Your task to perform on an android device: Go to display settings Image 0: 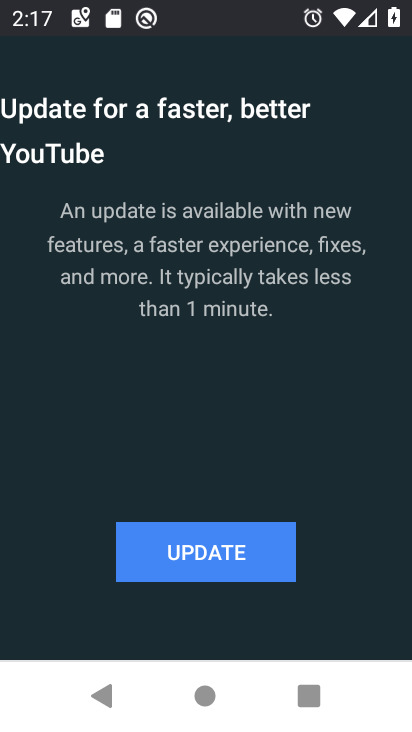
Step 0: press home button
Your task to perform on an android device: Go to display settings Image 1: 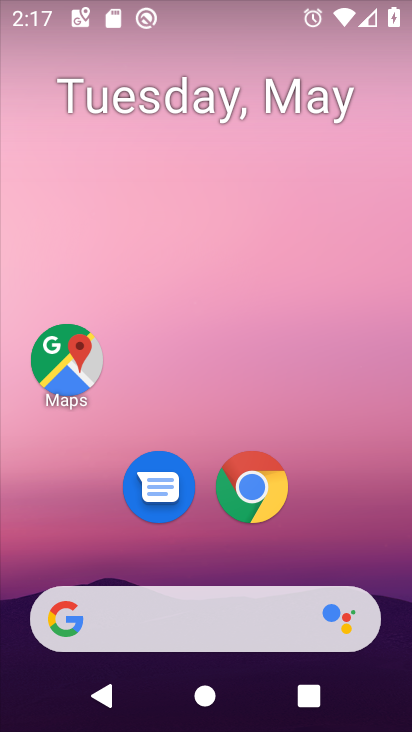
Step 1: drag from (11, 600) to (228, 192)
Your task to perform on an android device: Go to display settings Image 2: 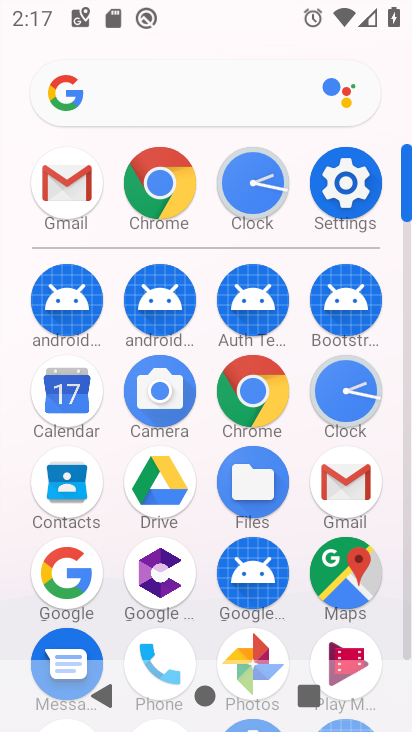
Step 2: click (347, 201)
Your task to perform on an android device: Go to display settings Image 3: 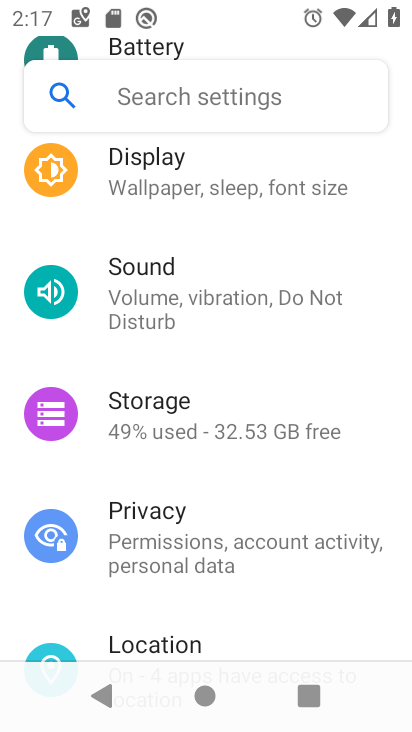
Step 3: click (183, 176)
Your task to perform on an android device: Go to display settings Image 4: 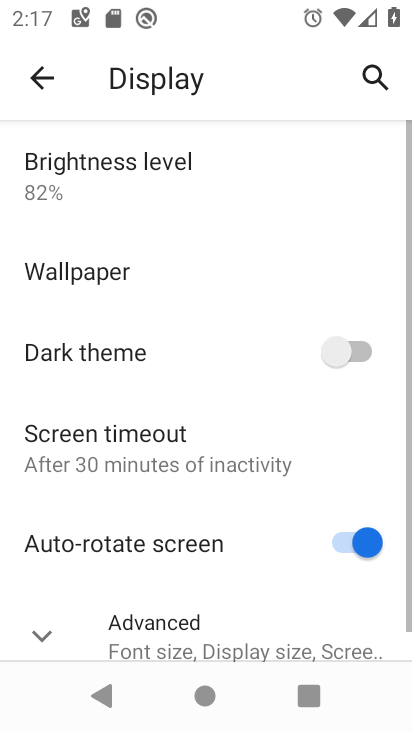
Step 4: task complete